Your task to perform on an android device: turn on bluetooth scan Image 0: 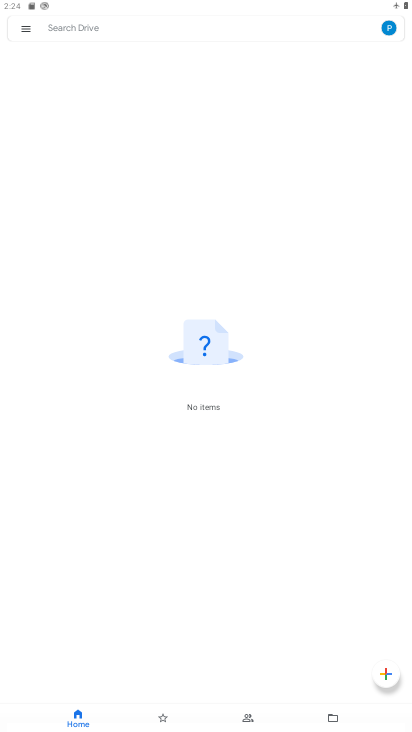
Step 0: press home button
Your task to perform on an android device: turn on bluetooth scan Image 1: 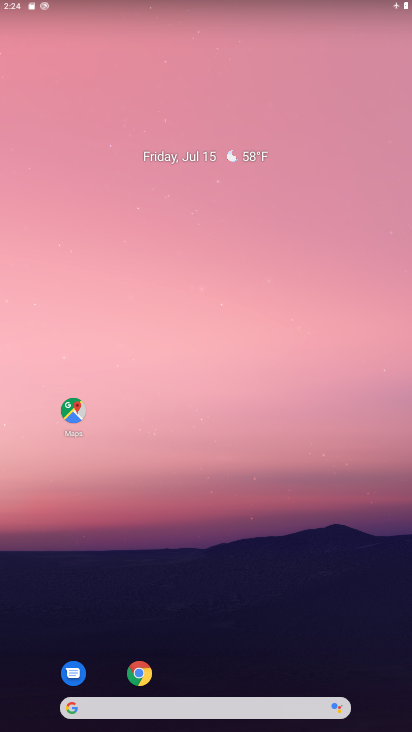
Step 1: drag from (390, 692) to (344, 68)
Your task to perform on an android device: turn on bluetooth scan Image 2: 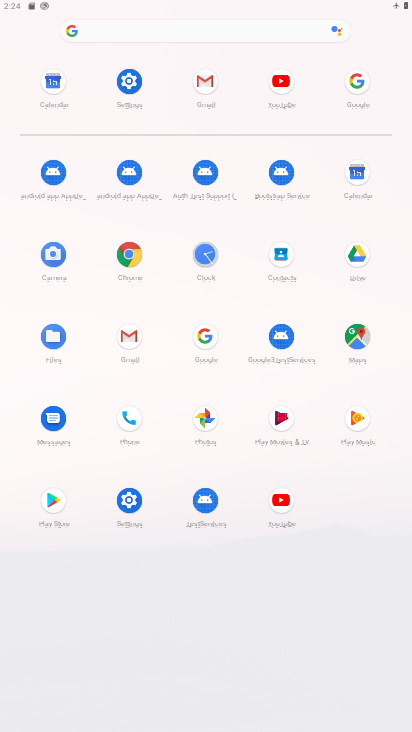
Step 2: click (132, 80)
Your task to perform on an android device: turn on bluetooth scan Image 3: 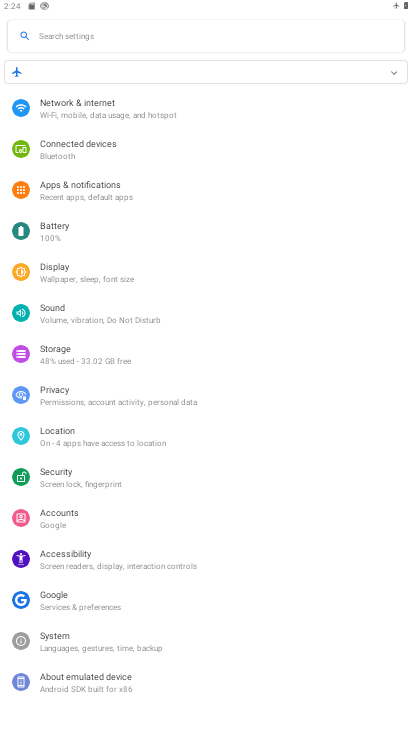
Step 3: click (58, 427)
Your task to perform on an android device: turn on bluetooth scan Image 4: 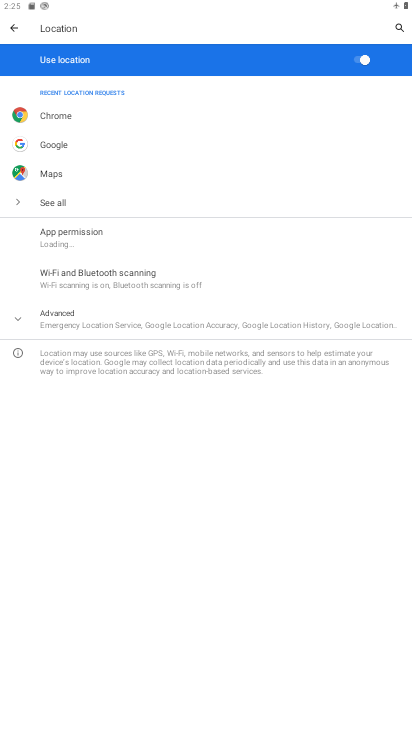
Step 4: click (90, 276)
Your task to perform on an android device: turn on bluetooth scan Image 5: 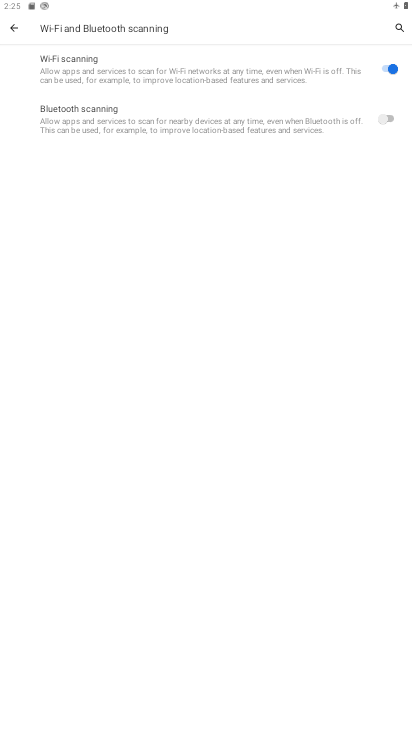
Step 5: click (385, 114)
Your task to perform on an android device: turn on bluetooth scan Image 6: 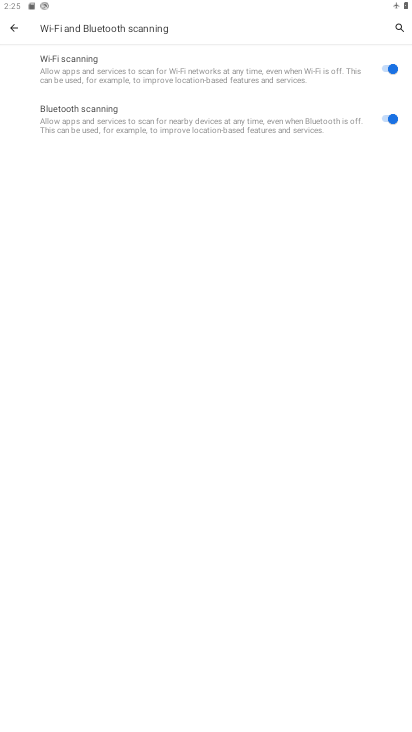
Step 6: task complete